Your task to perform on an android device: Go to Wikipedia Image 0: 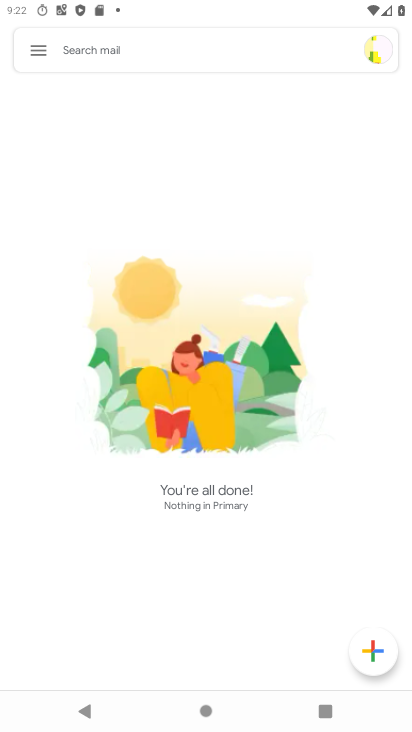
Step 0: press back button
Your task to perform on an android device: Go to Wikipedia Image 1: 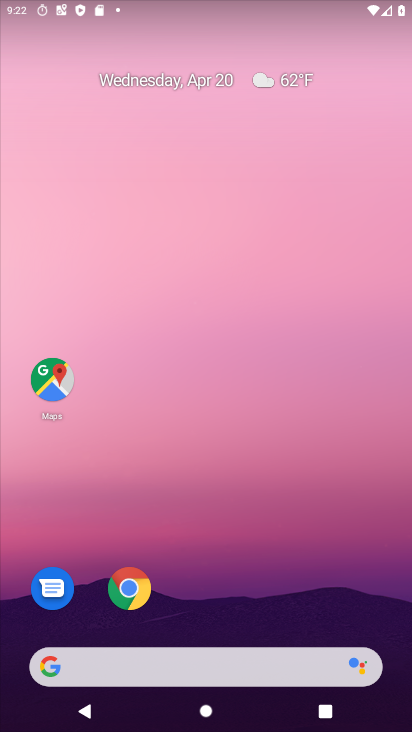
Step 1: drag from (274, 502) to (194, 18)
Your task to perform on an android device: Go to Wikipedia Image 2: 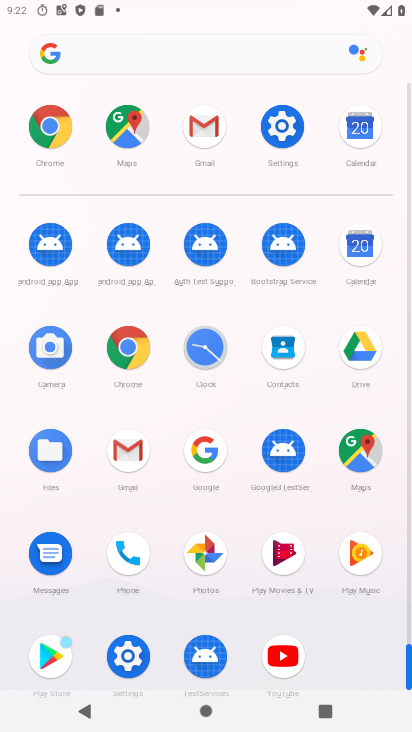
Step 2: click (48, 119)
Your task to perform on an android device: Go to Wikipedia Image 3: 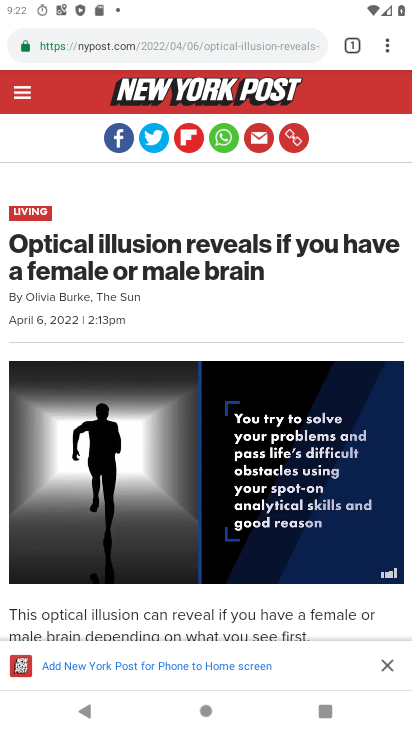
Step 3: click (202, 47)
Your task to perform on an android device: Go to Wikipedia Image 4: 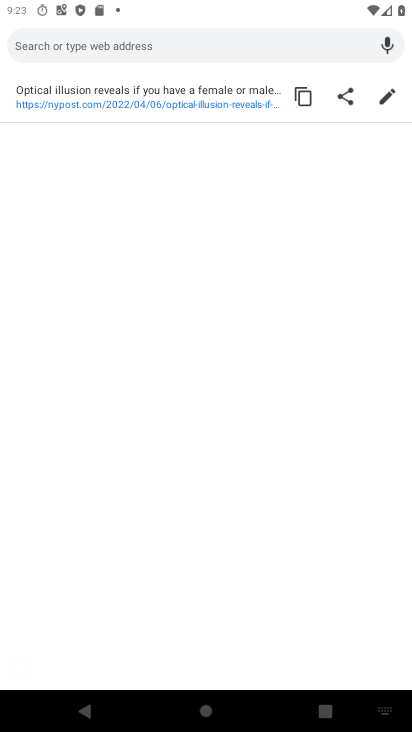
Step 4: type " Wikipedia"
Your task to perform on an android device: Go to Wikipedia Image 5: 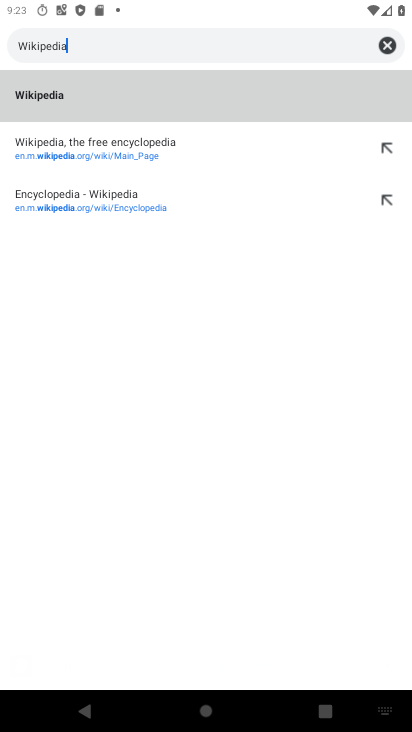
Step 5: click (118, 218)
Your task to perform on an android device: Go to Wikipedia Image 6: 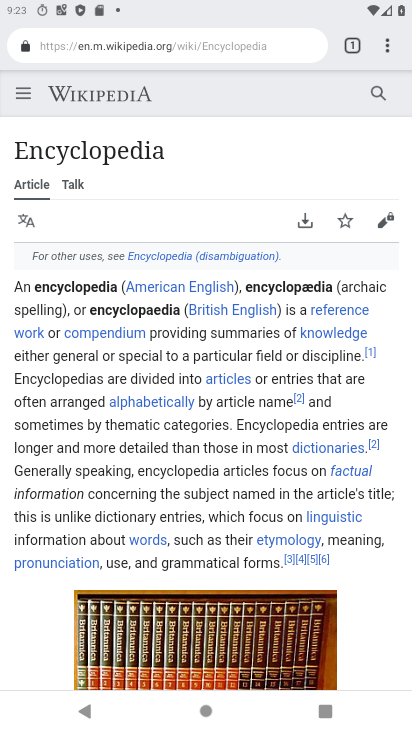
Step 6: task complete